Your task to perform on an android device: see tabs open on other devices in the chrome app Image 0: 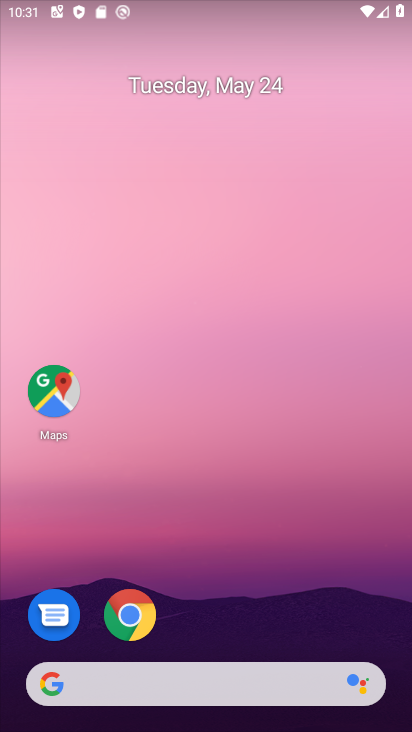
Step 0: click (120, 600)
Your task to perform on an android device: see tabs open on other devices in the chrome app Image 1: 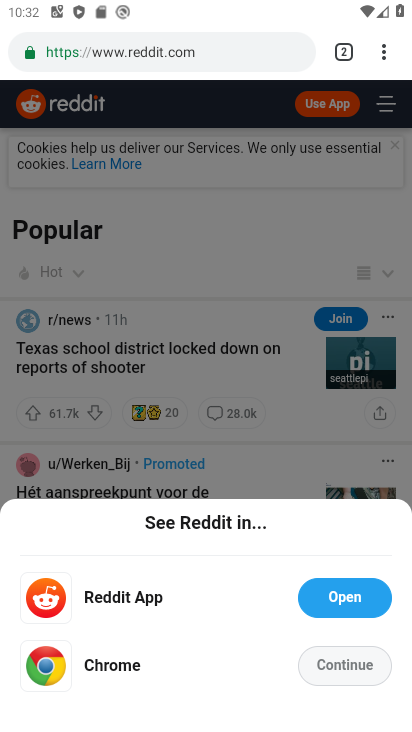
Step 1: click (380, 60)
Your task to perform on an android device: see tabs open on other devices in the chrome app Image 2: 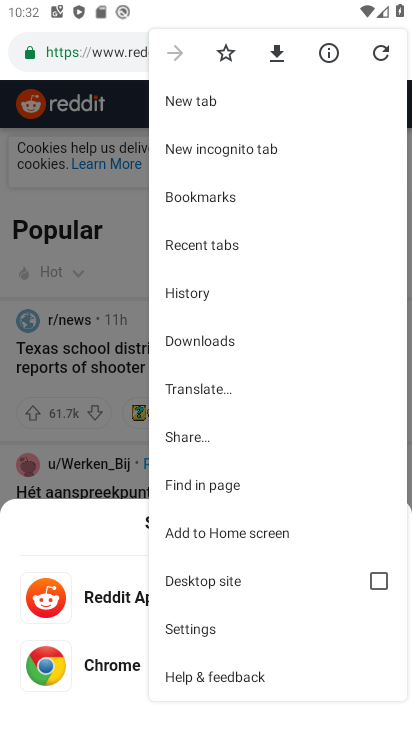
Step 2: click (204, 249)
Your task to perform on an android device: see tabs open on other devices in the chrome app Image 3: 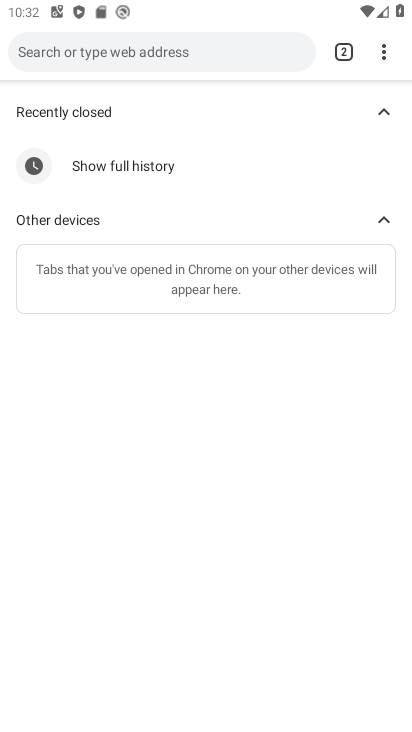
Step 3: click (172, 162)
Your task to perform on an android device: see tabs open on other devices in the chrome app Image 4: 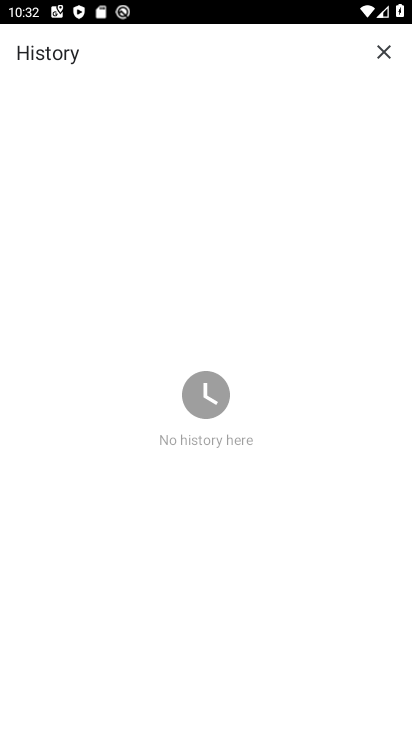
Step 4: task complete